Your task to perform on an android device: move an email to a new category in the gmail app Image 0: 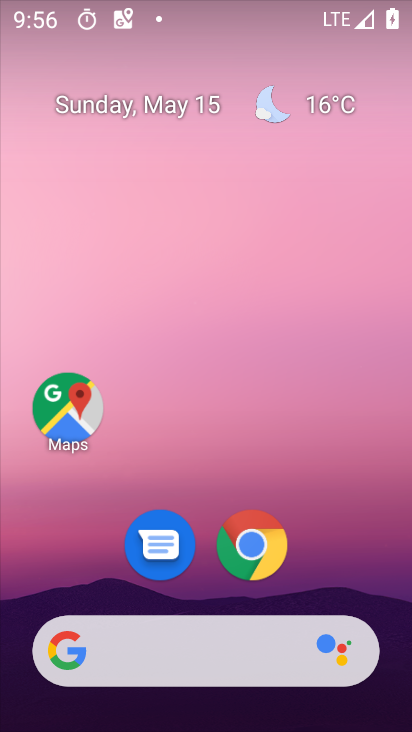
Step 0: drag from (337, 566) to (217, 64)
Your task to perform on an android device: move an email to a new category in the gmail app Image 1: 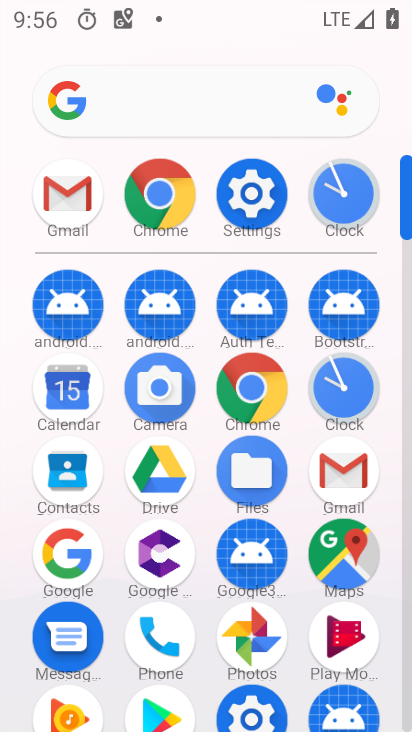
Step 1: click (66, 195)
Your task to perform on an android device: move an email to a new category in the gmail app Image 2: 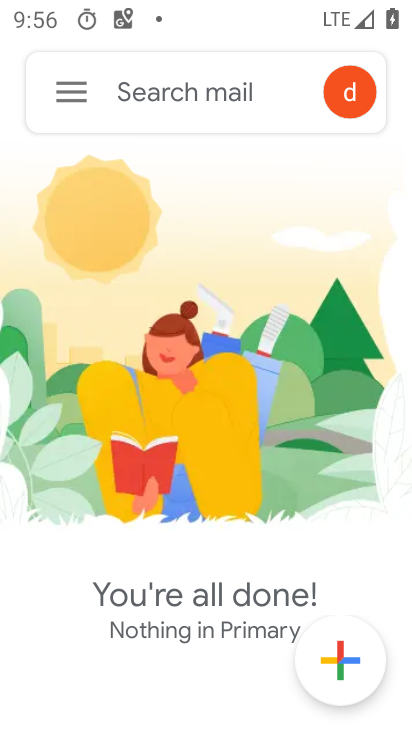
Step 2: click (76, 90)
Your task to perform on an android device: move an email to a new category in the gmail app Image 3: 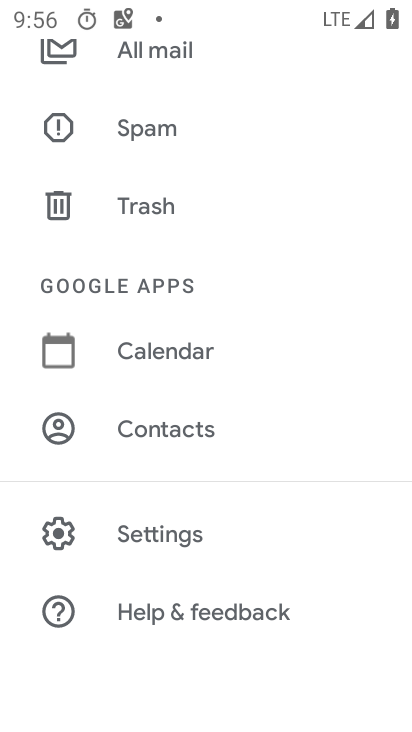
Step 3: drag from (204, 213) to (186, 345)
Your task to perform on an android device: move an email to a new category in the gmail app Image 4: 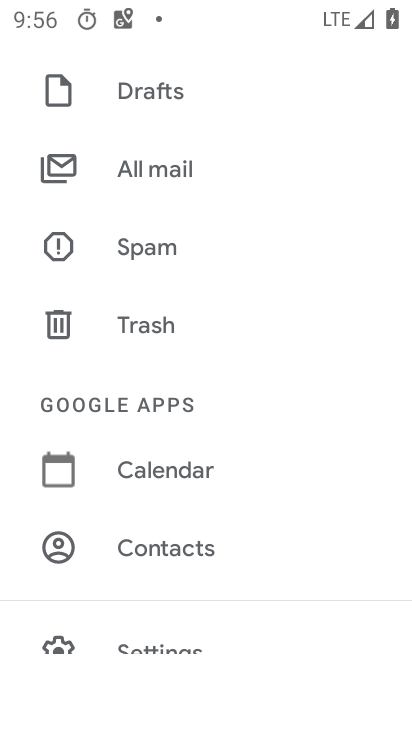
Step 4: click (168, 172)
Your task to perform on an android device: move an email to a new category in the gmail app Image 5: 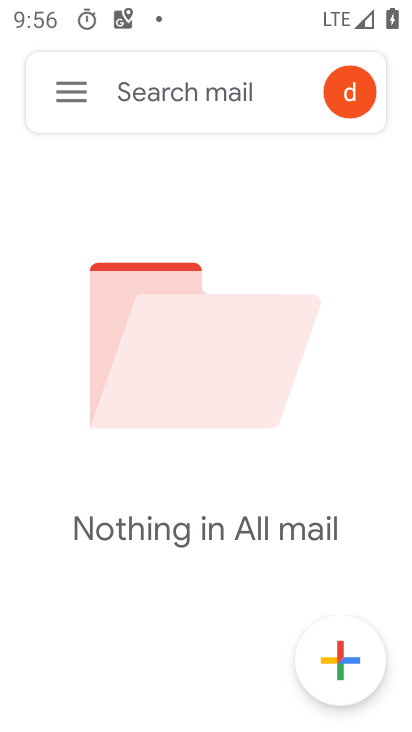
Step 5: click (90, 105)
Your task to perform on an android device: move an email to a new category in the gmail app Image 6: 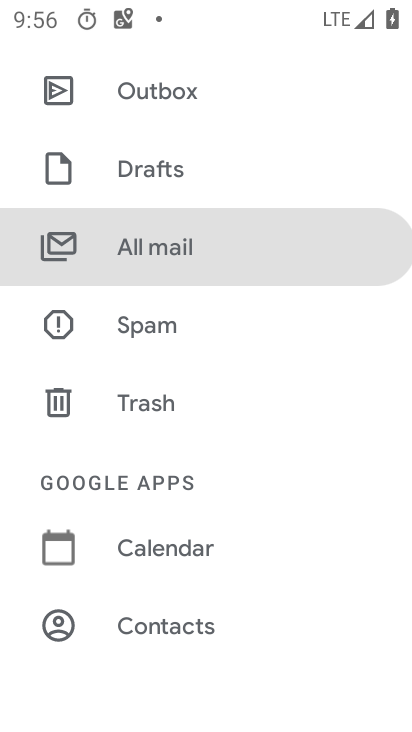
Step 6: drag from (211, 175) to (182, 392)
Your task to perform on an android device: move an email to a new category in the gmail app Image 7: 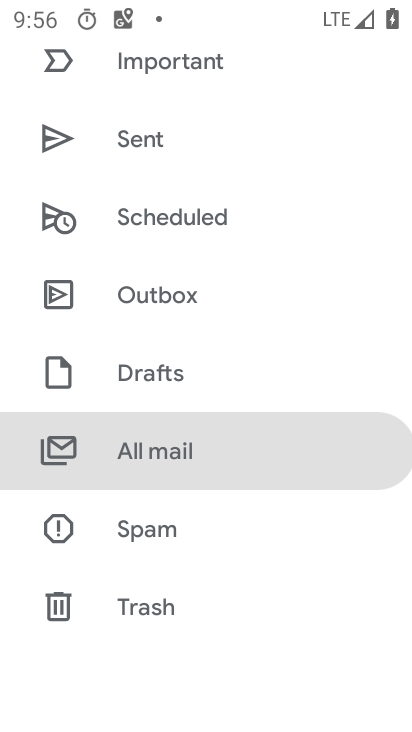
Step 7: drag from (190, 183) to (160, 383)
Your task to perform on an android device: move an email to a new category in the gmail app Image 8: 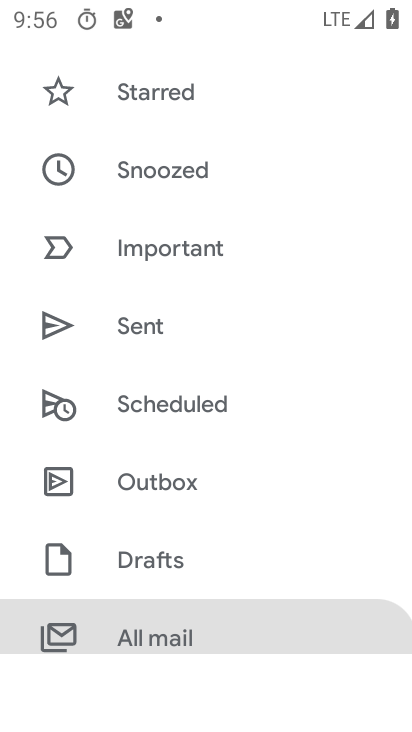
Step 8: drag from (174, 221) to (187, 332)
Your task to perform on an android device: move an email to a new category in the gmail app Image 9: 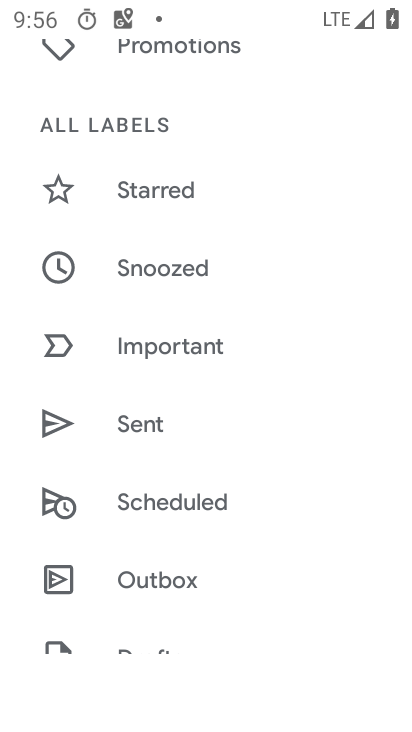
Step 9: drag from (169, 229) to (194, 327)
Your task to perform on an android device: move an email to a new category in the gmail app Image 10: 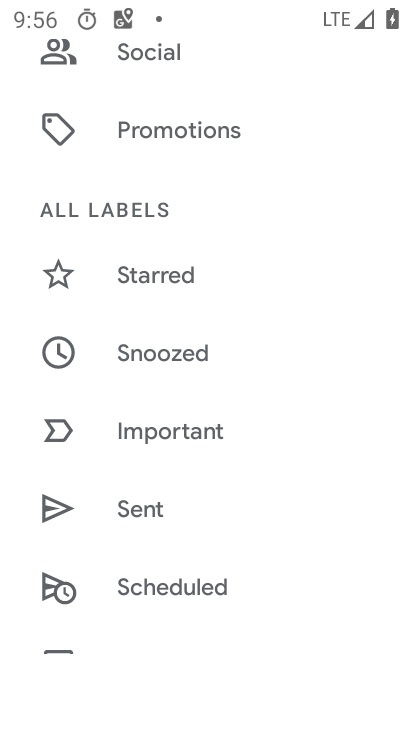
Step 10: drag from (176, 186) to (199, 356)
Your task to perform on an android device: move an email to a new category in the gmail app Image 11: 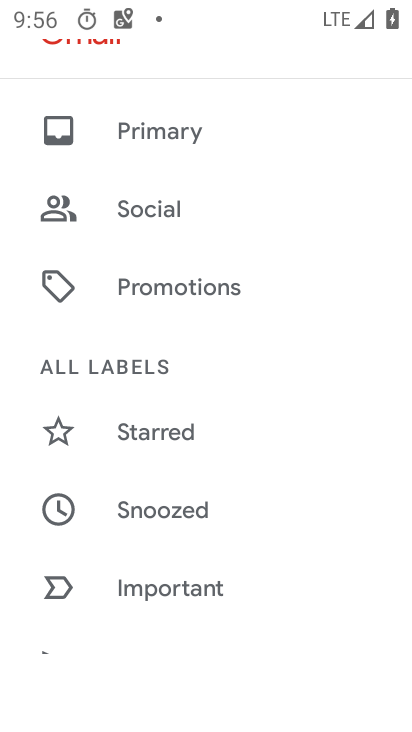
Step 11: click (176, 140)
Your task to perform on an android device: move an email to a new category in the gmail app Image 12: 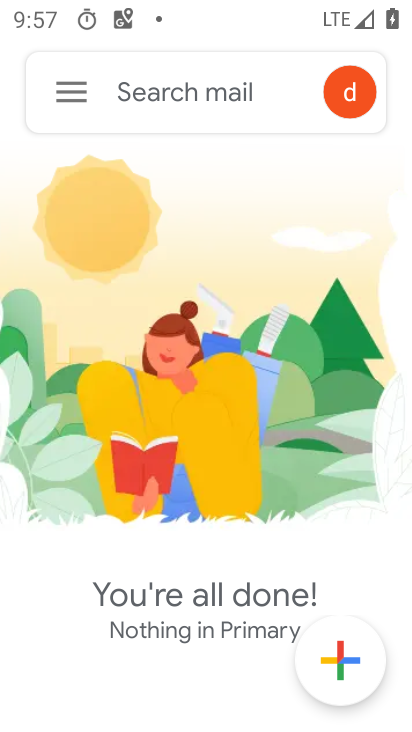
Step 12: task complete